Your task to perform on an android device: Search for the best gaming mouses on Amazon. Image 0: 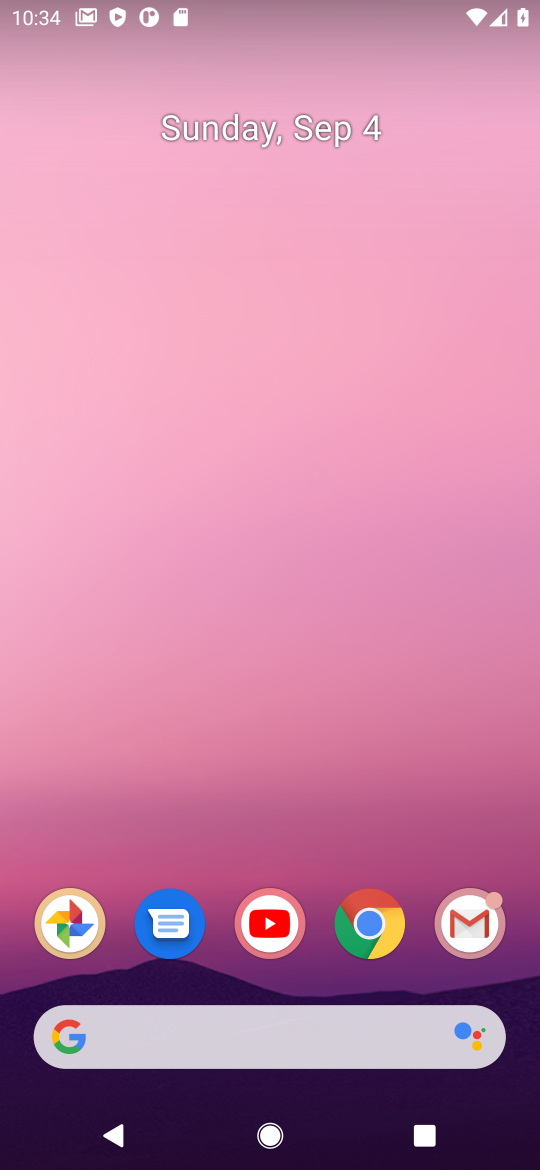
Step 0: click (356, 935)
Your task to perform on an android device: Search for the best gaming mouses on Amazon. Image 1: 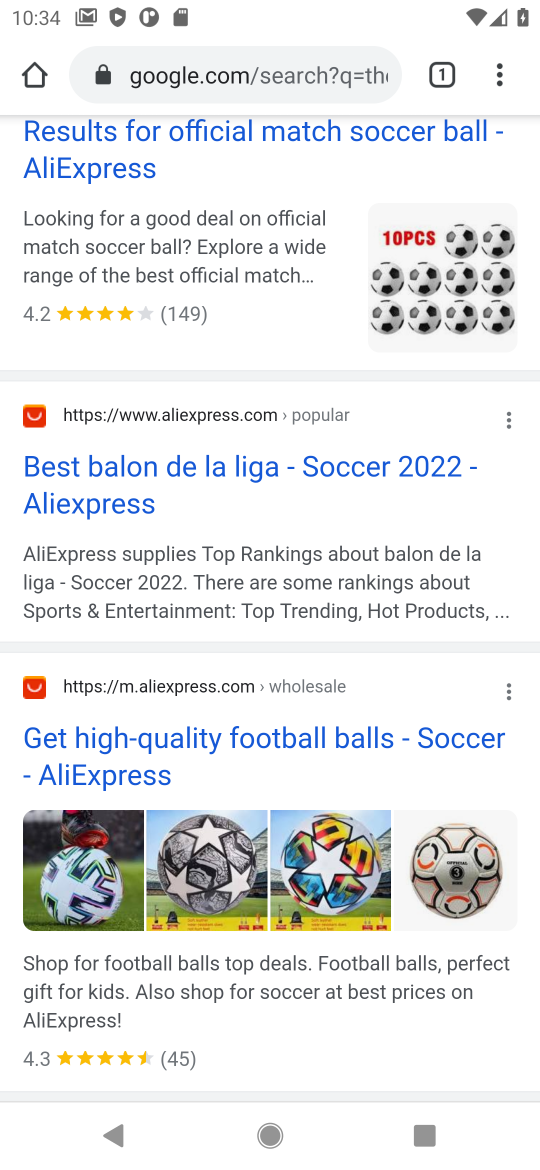
Step 1: click (196, 63)
Your task to perform on an android device: Search for the best gaming mouses on Amazon. Image 2: 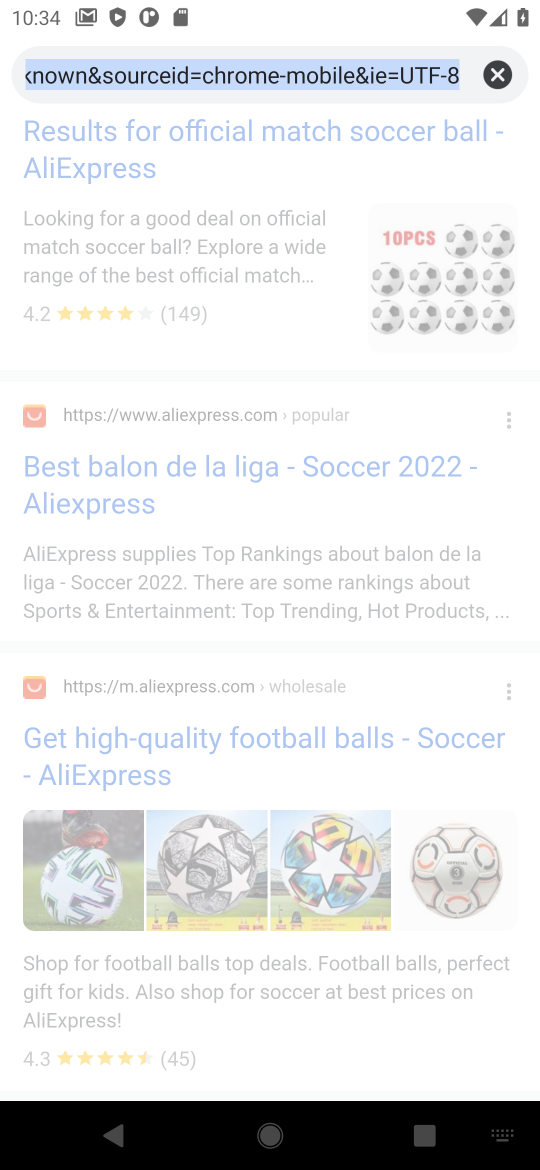
Step 2: click (500, 72)
Your task to perform on an android device: Search for the best gaming mouses on Amazon. Image 3: 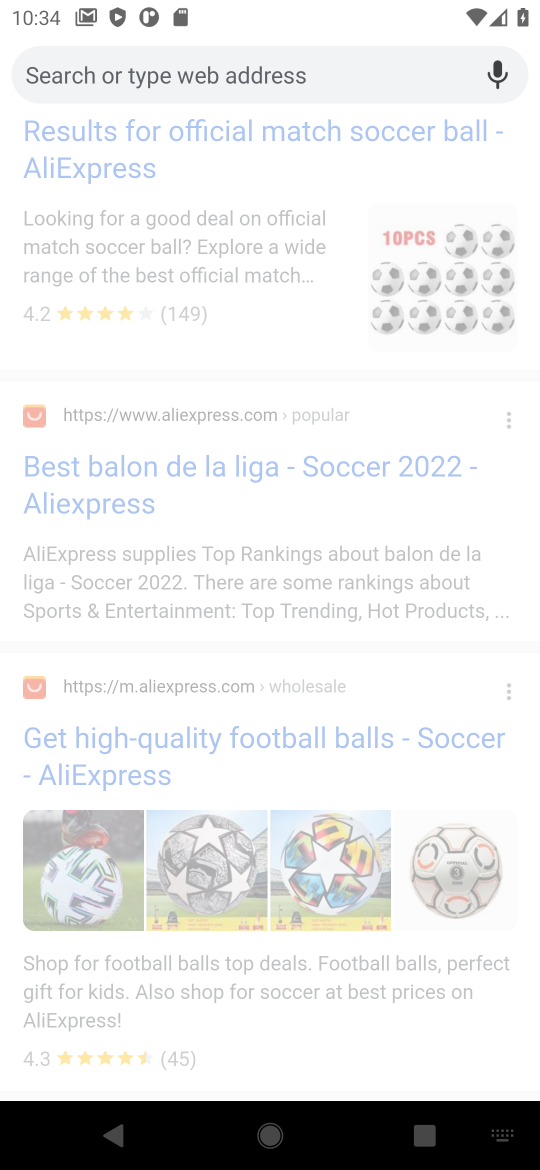
Step 3: type "the best gaming mouses on Amazon."
Your task to perform on an android device: Search for the best gaming mouses on Amazon. Image 4: 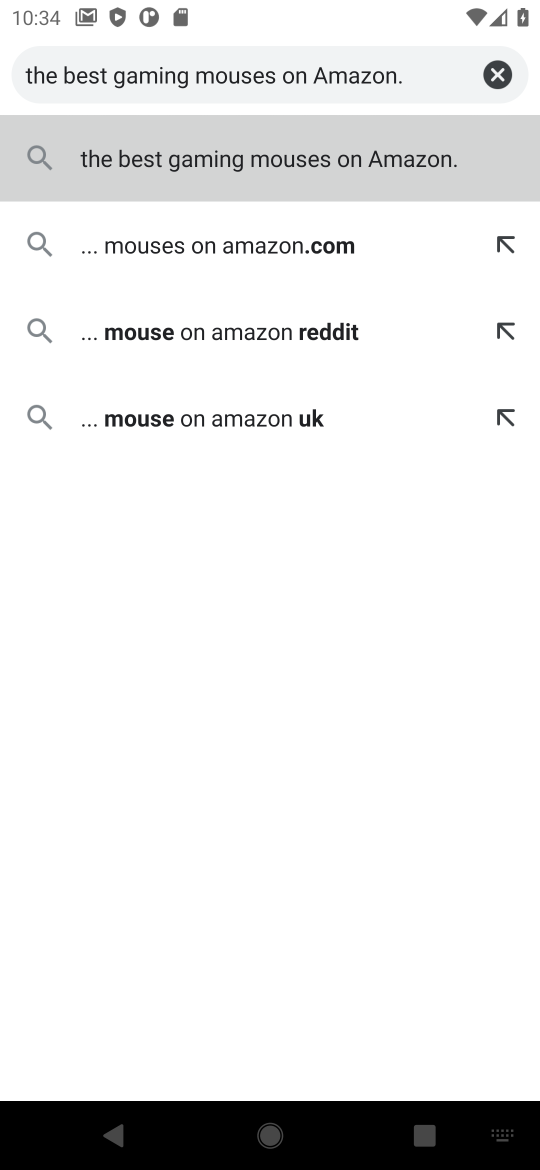
Step 4: click (273, 155)
Your task to perform on an android device: Search for the best gaming mouses on Amazon. Image 5: 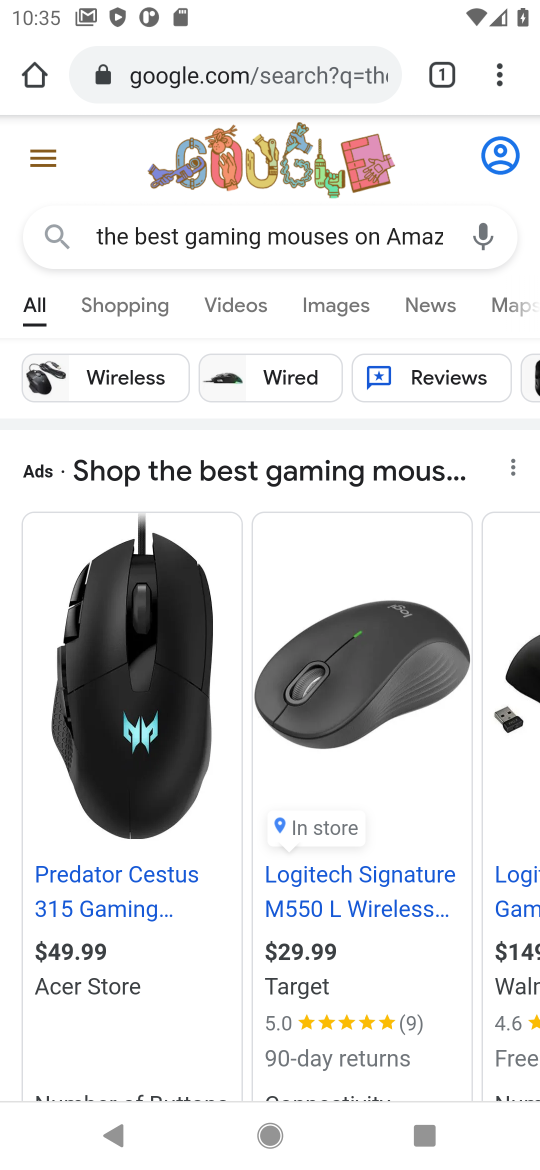
Step 5: drag from (96, 643) to (176, 298)
Your task to perform on an android device: Search for the best gaming mouses on Amazon. Image 6: 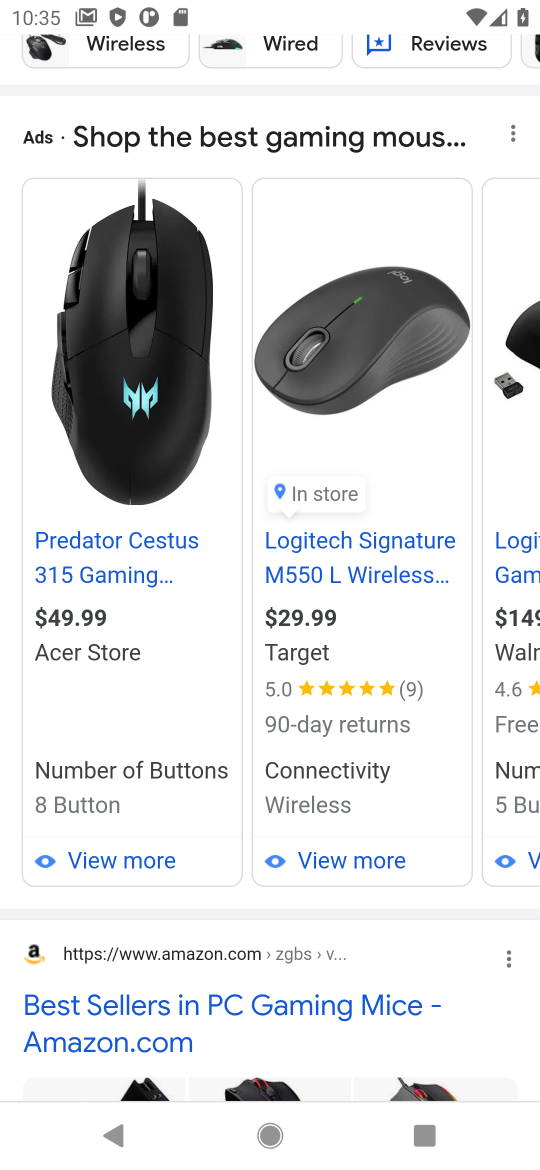
Step 6: click (77, 702)
Your task to perform on an android device: Search for the best gaming mouses on Amazon. Image 7: 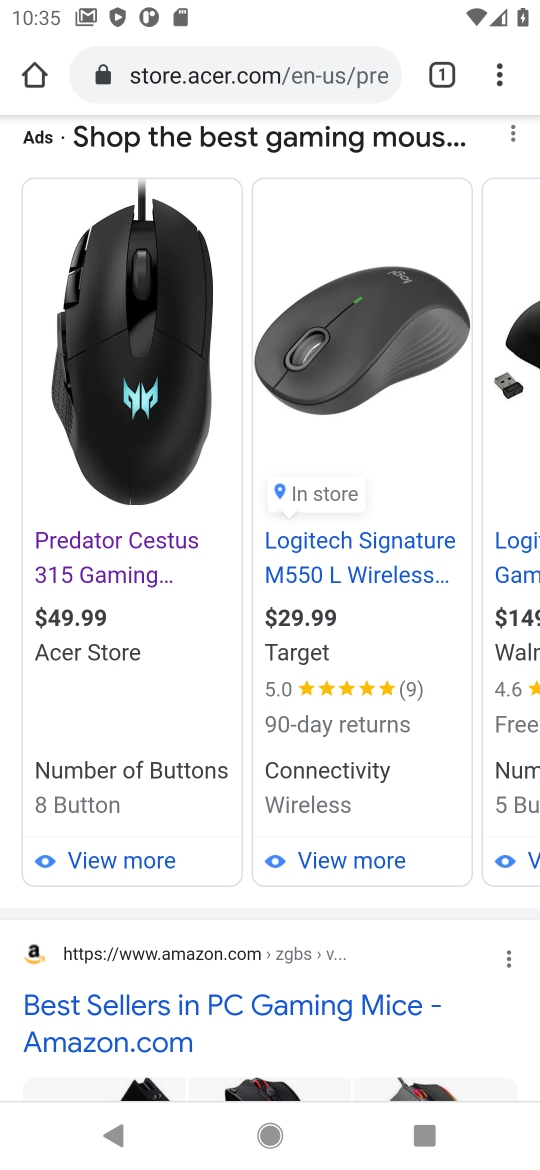
Step 7: task complete